Your task to perform on an android device: turn off picture-in-picture Image 0: 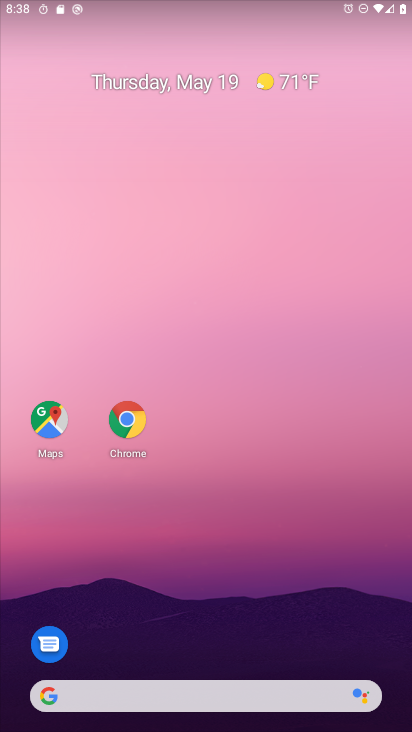
Step 0: click (128, 416)
Your task to perform on an android device: turn off picture-in-picture Image 1: 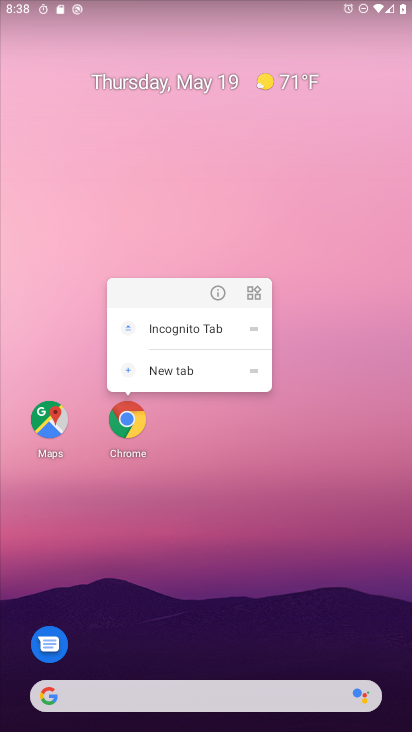
Step 1: click (218, 296)
Your task to perform on an android device: turn off picture-in-picture Image 2: 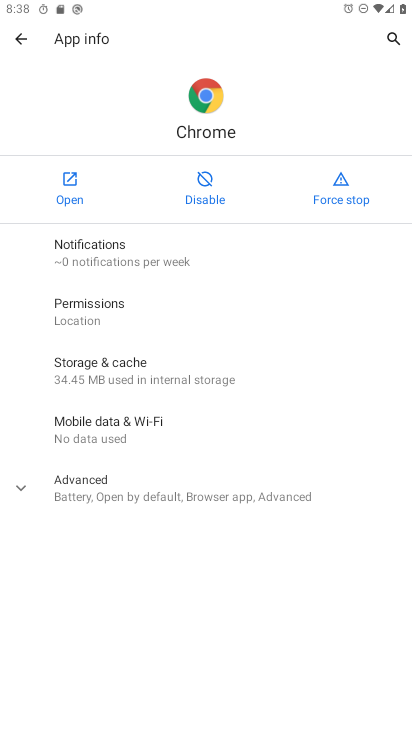
Step 2: click (136, 491)
Your task to perform on an android device: turn off picture-in-picture Image 3: 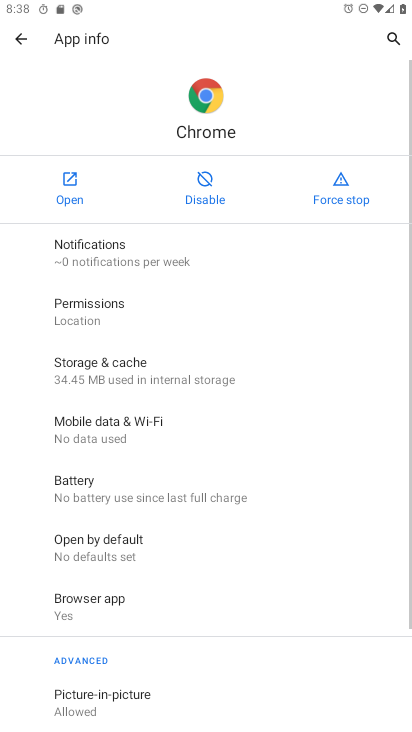
Step 3: click (90, 711)
Your task to perform on an android device: turn off picture-in-picture Image 4: 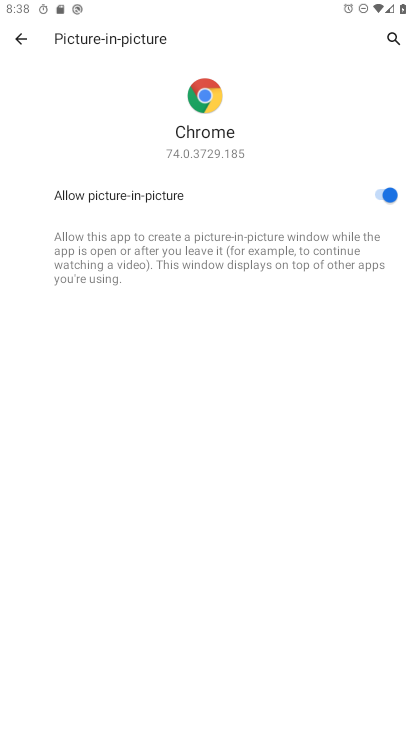
Step 4: click (386, 193)
Your task to perform on an android device: turn off picture-in-picture Image 5: 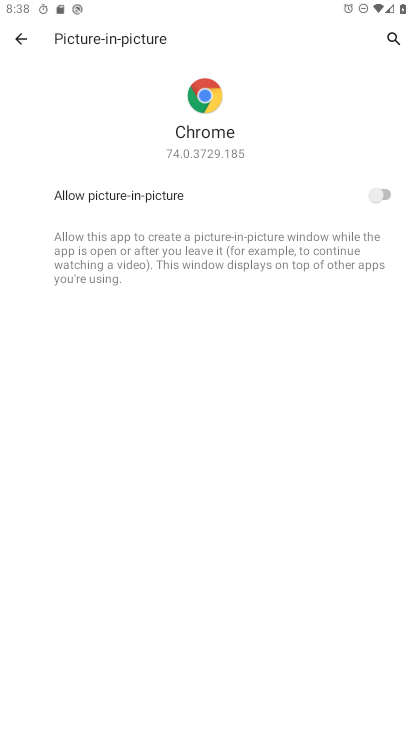
Step 5: task complete